Your task to perform on an android device: toggle airplane mode Image 0: 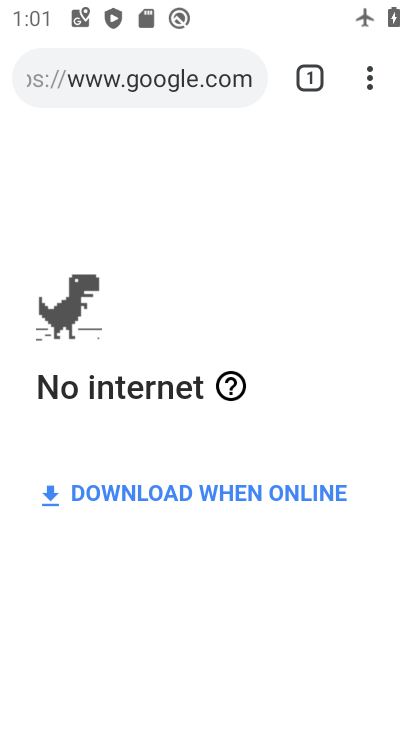
Step 0: press home button
Your task to perform on an android device: toggle airplane mode Image 1: 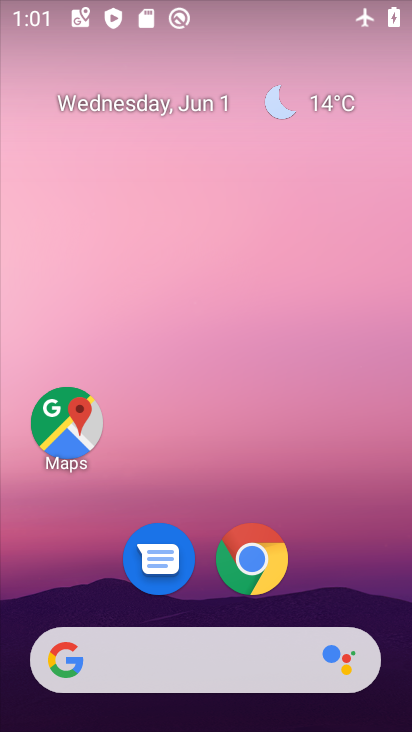
Step 1: drag from (390, 695) to (361, 146)
Your task to perform on an android device: toggle airplane mode Image 2: 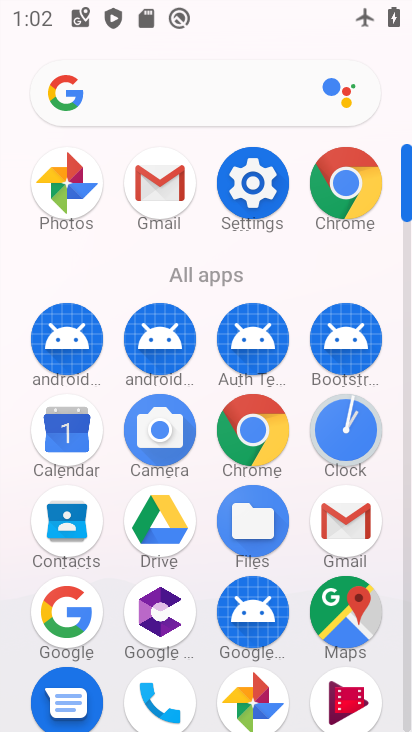
Step 2: click (254, 197)
Your task to perform on an android device: toggle airplane mode Image 3: 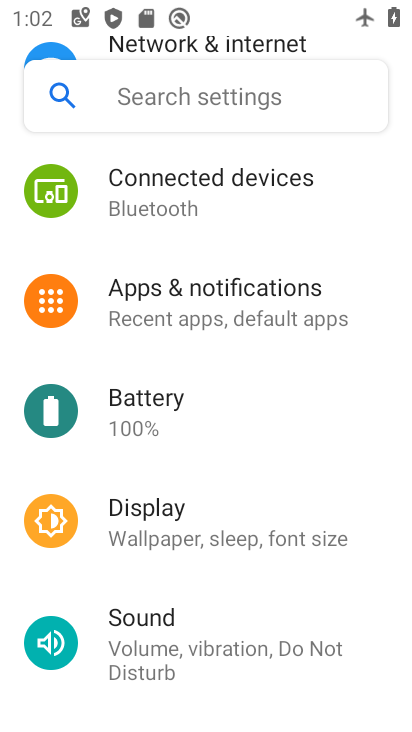
Step 3: click (231, 44)
Your task to perform on an android device: toggle airplane mode Image 4: 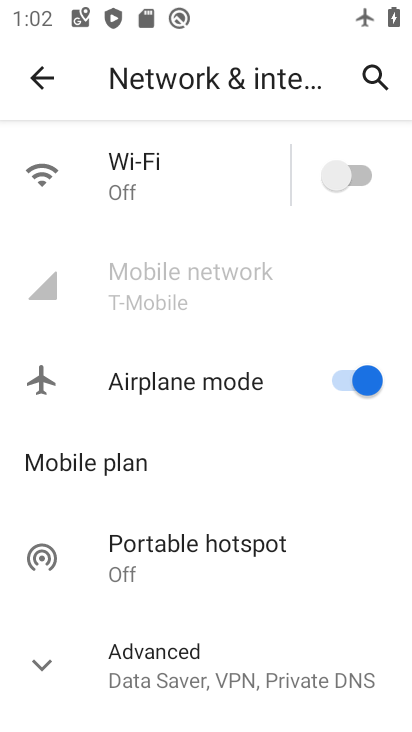
Step 4: click (352, 388)
Your task to perform on an android device: toggle airplane mode Image 5: 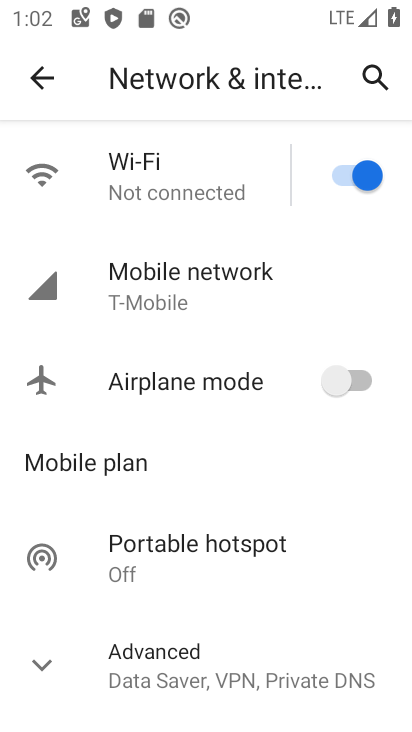
Step 5: task complete